Your task to perform on an android device: When is my next appointment? Image 0: 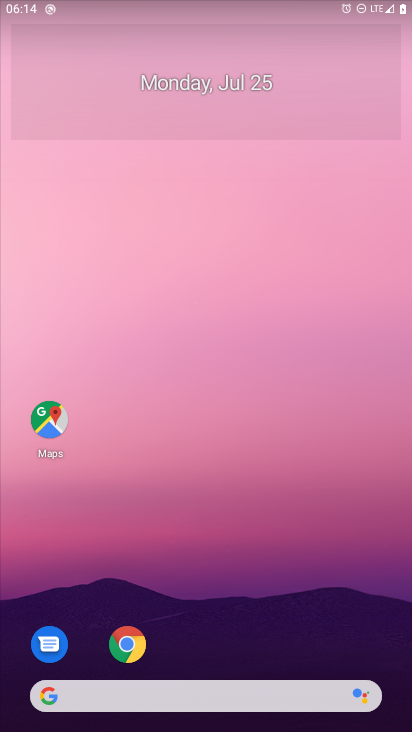
Step 0: press home button
Your task to perform on an android device: When is my next appointment? Image 1: 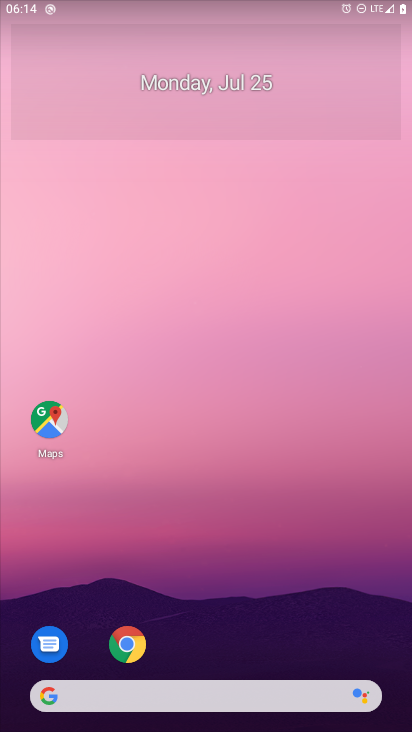
Step 1: drag from (209, 661) to (194, 249)
Your task to perform on an android device: When is my next appointment? Image 2: 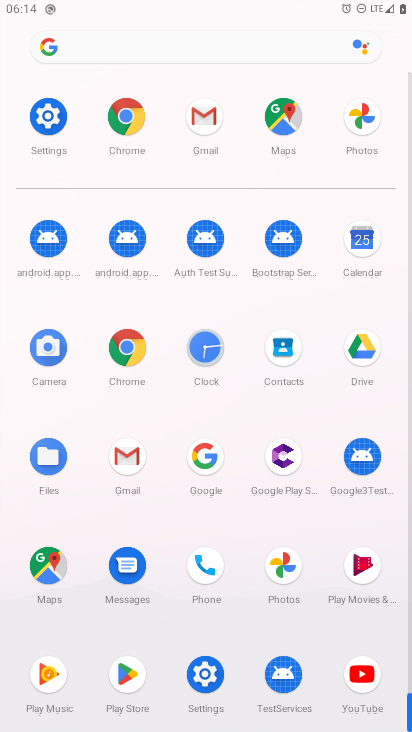
Step 2: click (363, 232)
Your task to perform on an android device: When is my next appointment? Image 3: 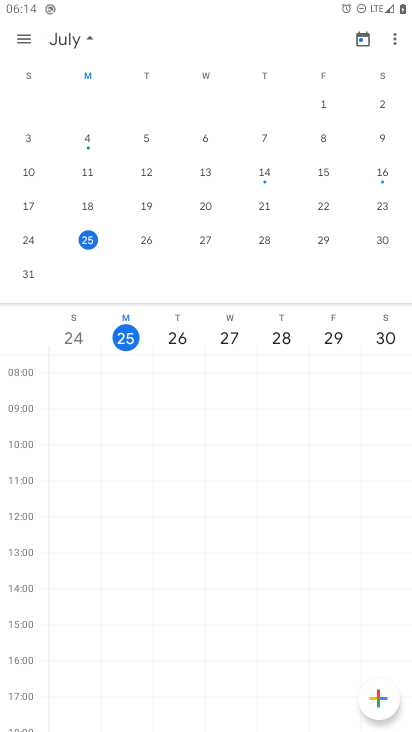
Step 3: click (28, 36)
Your task to perform on an android device: When is my next appointment? Image 4: 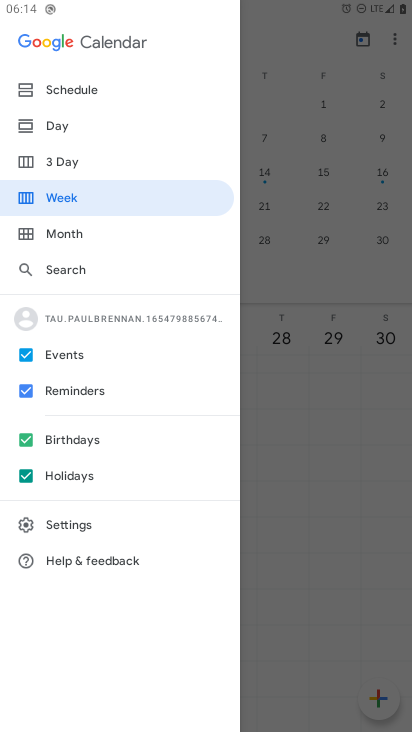
Step 4: click (73, 96)
Your task to perform on an android device: When is my next appointment? Image 5: 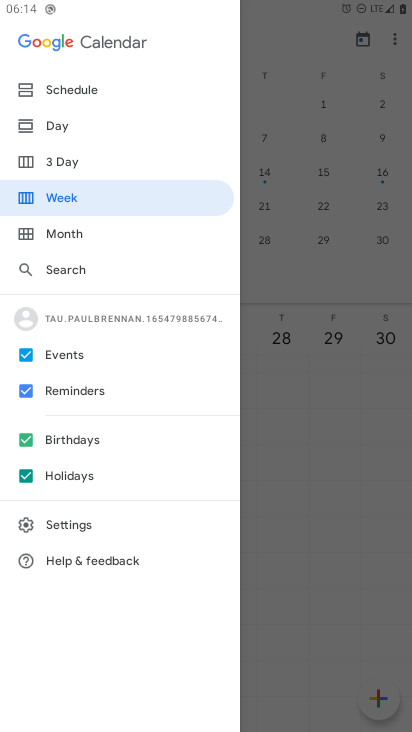
Step 5: task complete